Your task to perform on an android device: When is my next meeting? Image 0: 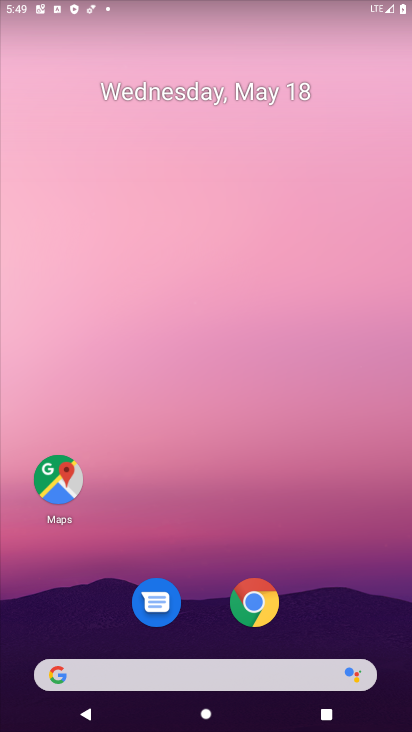
Step 0: drag from (304, 667) to (246, 0)
Your task to perform on an android device: When is my next meeting? Image 1: 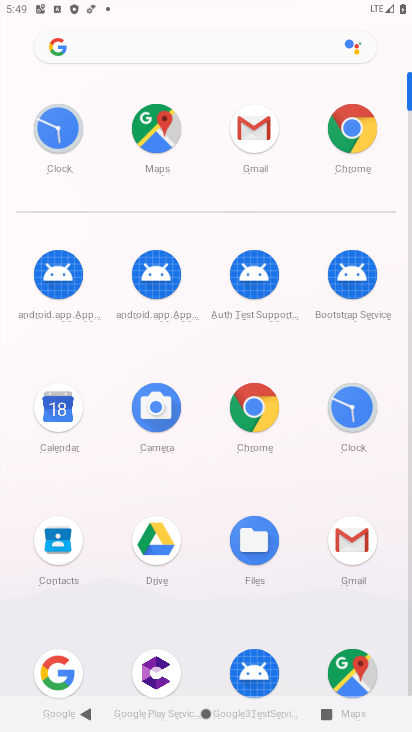
Step 1: click (54, 414)
Your task to perform on an android device: When is my next meeting? Image 2: 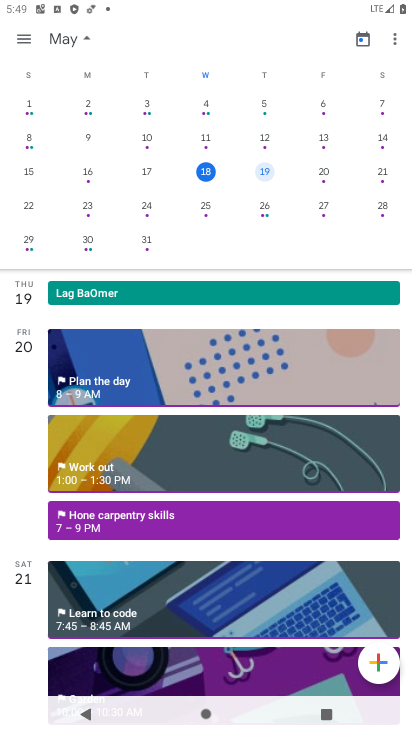
Step 2: task complete